Your task to perform on an android device: Open Google Chrome Image 0: 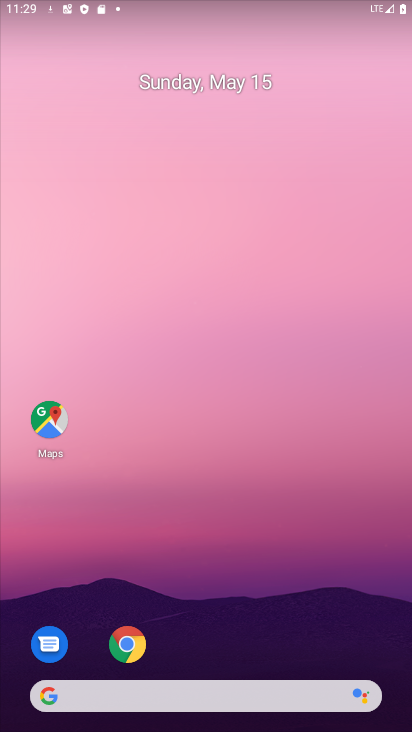
Step 0: drag from (215, 700) to (203, 177)
Your task to perform on an android device: Open Google Chrome Image 1: 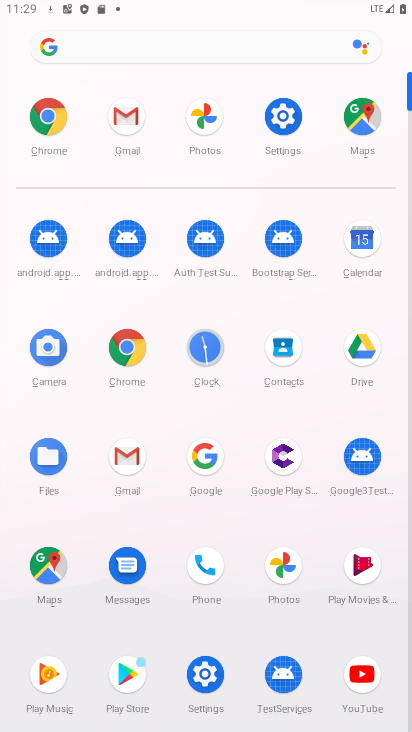
Step 1: click (135, 345)
Your task to perform on an android device: Open Google Chrome Image 2: 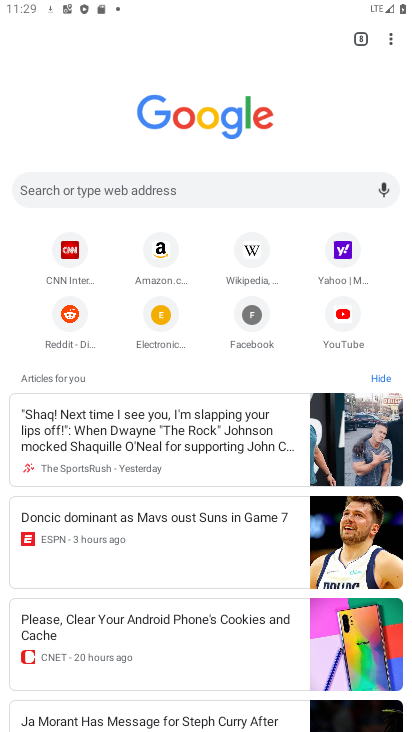
Step 2: task complete